Your task to perform on an android device: check out phone information Image 0: 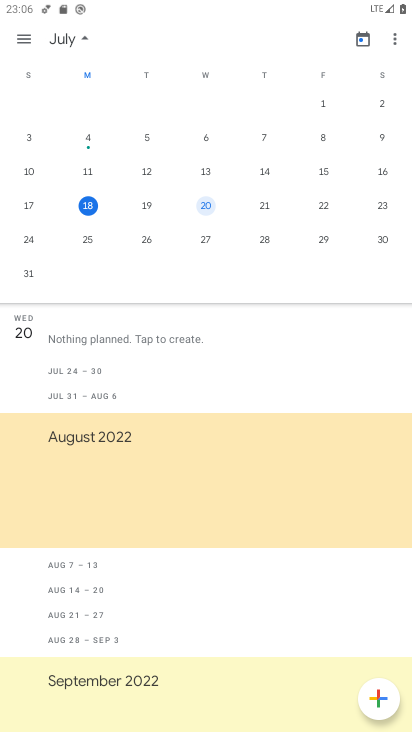
Step 0: press home button
Your task to perform on an android device: check out phone information Image 1: 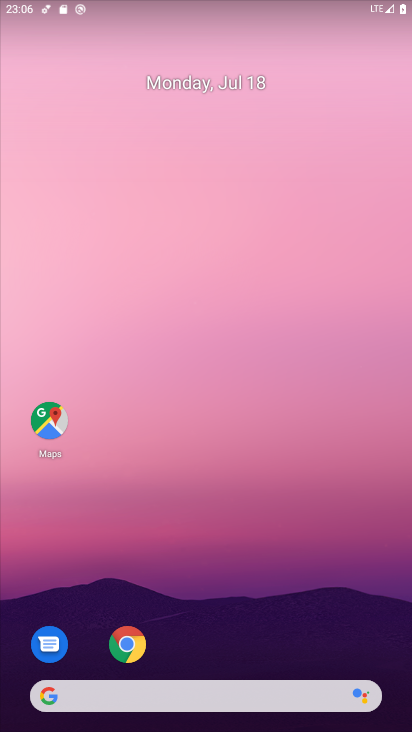
Step 1: drag from (338, 616) to (333, 145)
Your task to perform on an android device: check out phone information Image 2: 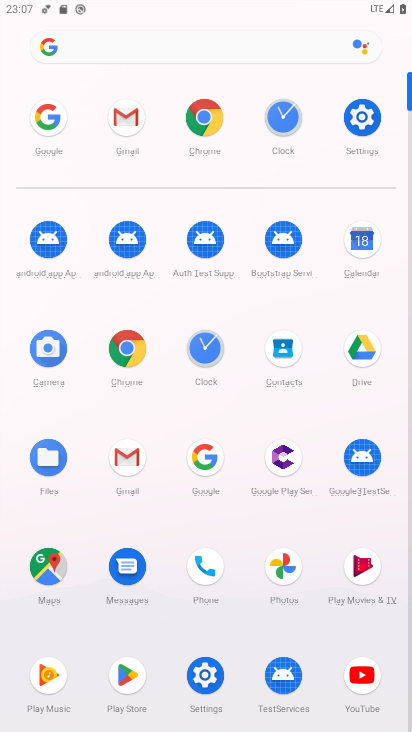
Step 2: click (204, 573)
Your task to perform on an android device: check out phone information Image 3: 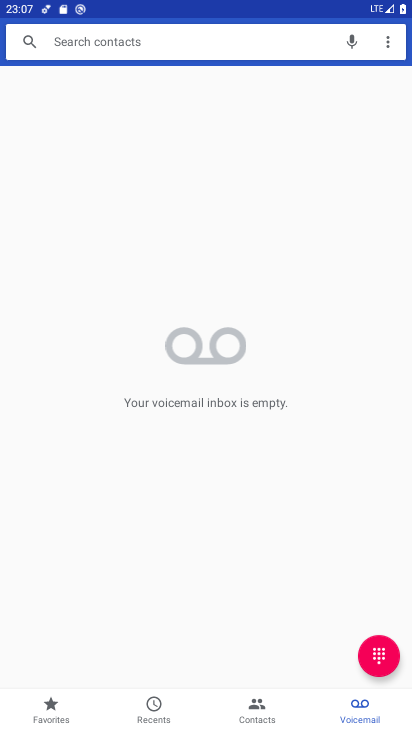
Step 3: task complete